Your task to perform on an android device: stop showing notifications on the lock screen Image 0: 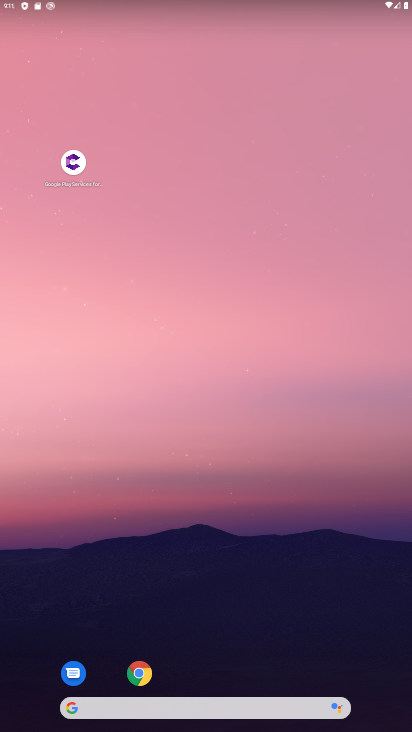
Step 0: drag from (359, 648) to (377, 149)
Your task to perform on an android device: stop showing notifications on the lock screen Image 1: 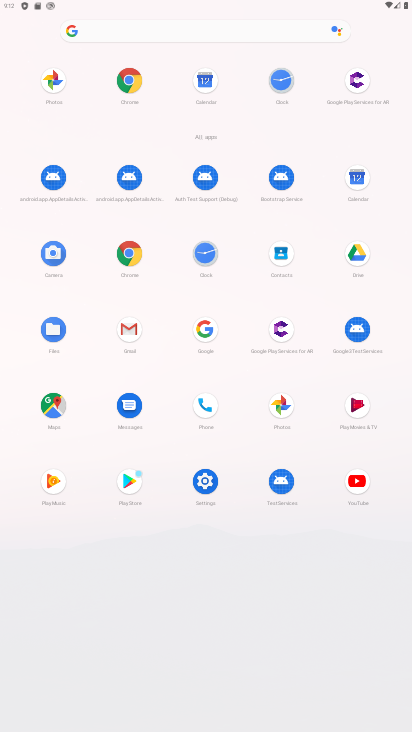
Step 1: click (207, 483)
Your task to perform on an android device: stop showing notifications on the lock screen Image 2: 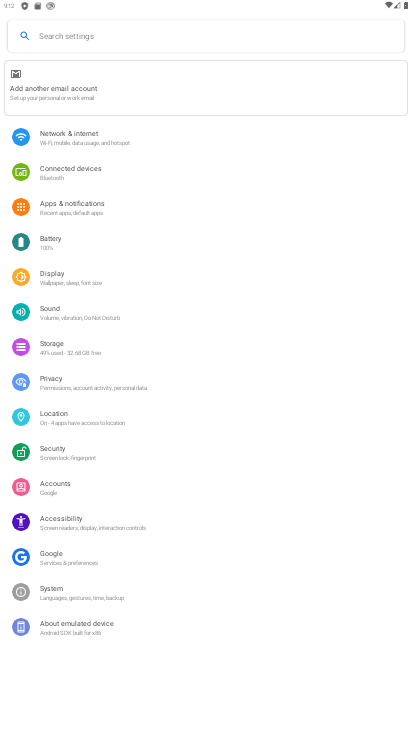
Step 2: click (93, 203)
Your task to perform on an android device: stop showing notifications on the lock screen Image 3: 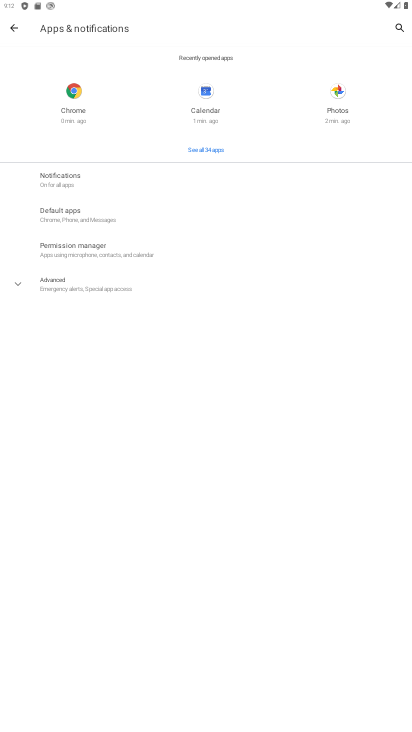
Step 3: click (84, 182)
Your task to perform on an android device: stop showing notifications on the lock screen Image 4: 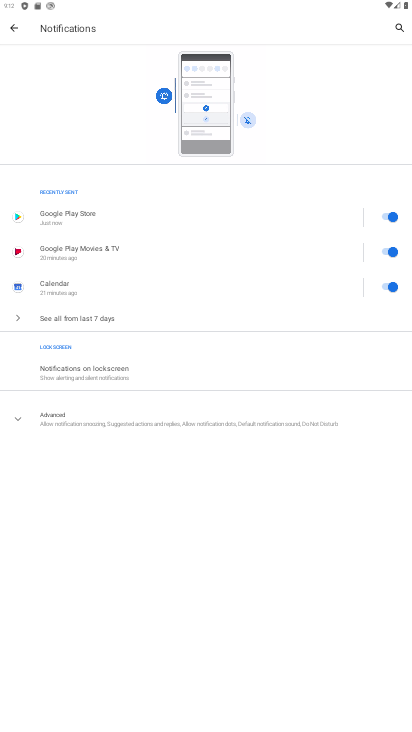
Step 4: click (147, 380)
Your task to perform on an android device: stop showing notifications on the lock screen Image 5: 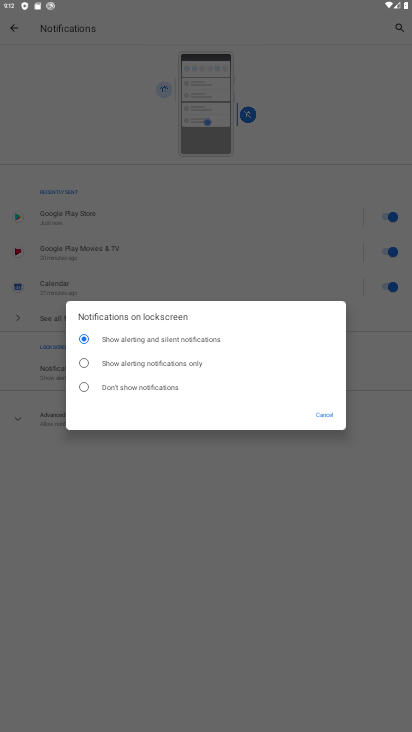
Step 5: click (87, 388)
Your task to perform on an android device: stop showing notifications on the lock screen Image 6: 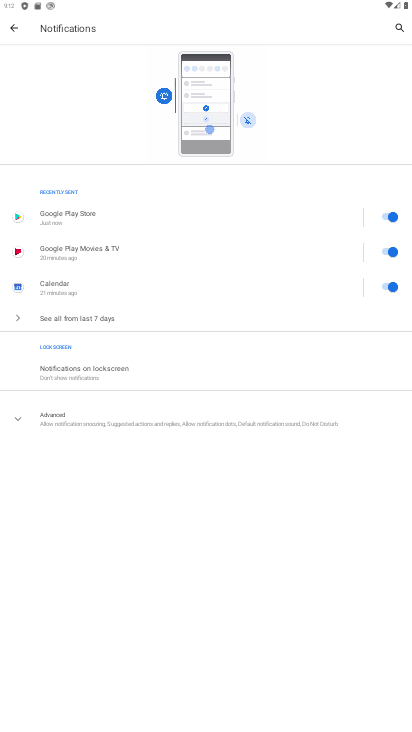
Step 6: task complete